Your task to perform on an android device: Open network settings Image 0: 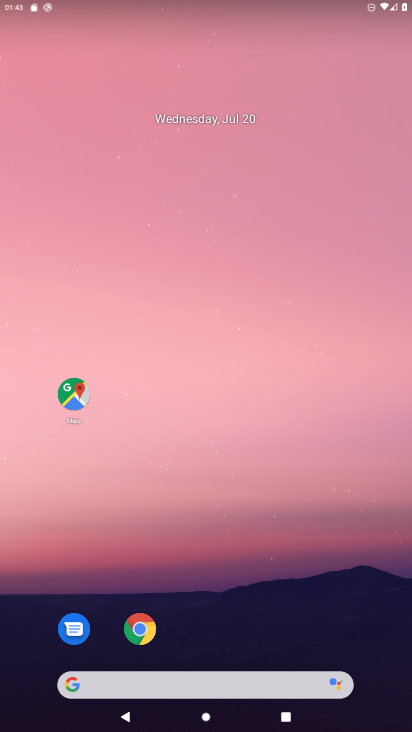
Step 0: drag from (196, 559) to (191, 34)
Your task to perform on an android device: Open network settings Image 1: 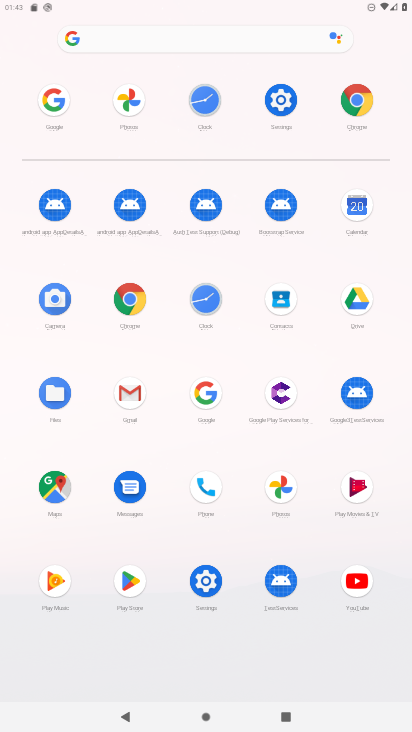
Step 1: click (273, 108)
Your task to perform on an android device: Open network settings Image 2: 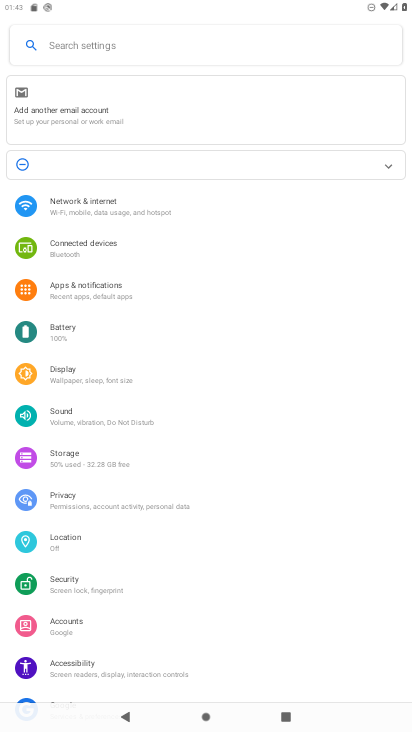
Step 2: click (78, 206)
Your task to perform on an android device: Open network settings Image 3: 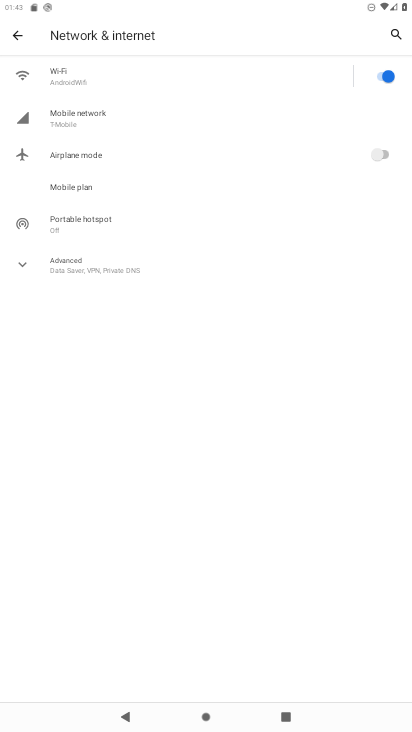
Step 3: task complete